Your task to perform on an android device: Find coffee shops on Maps Image 0: 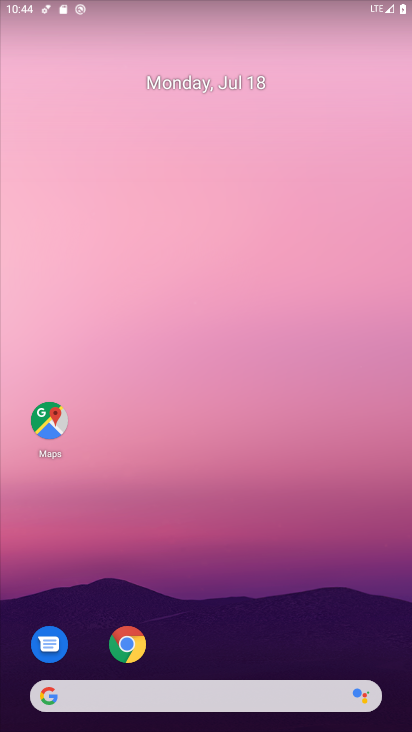
Step 0: drag from (359, 635) to (389, 131)
Your task to perform on an android device: Find coffee shops on Maps Image 1: 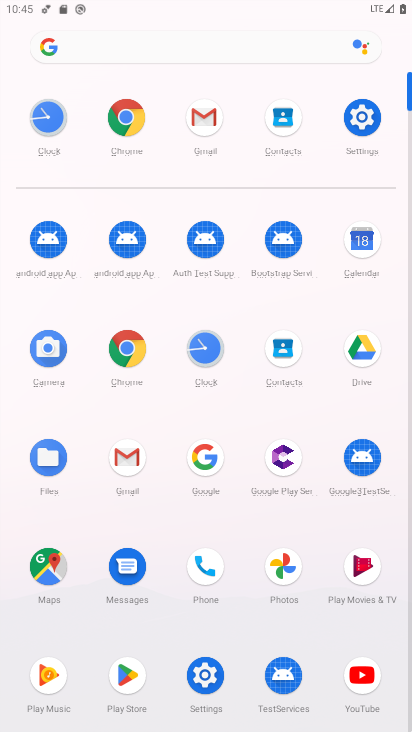
Step 1: click (53, 568)
Your task to perform on an android device: Find coffee shops on Maps Image 2: 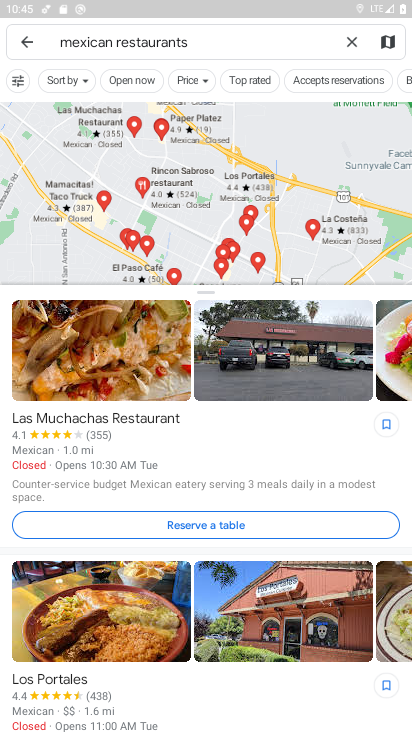
Step 2: press back button
Your task to perform on an android device: Find coffee shops on Maps Image 3: 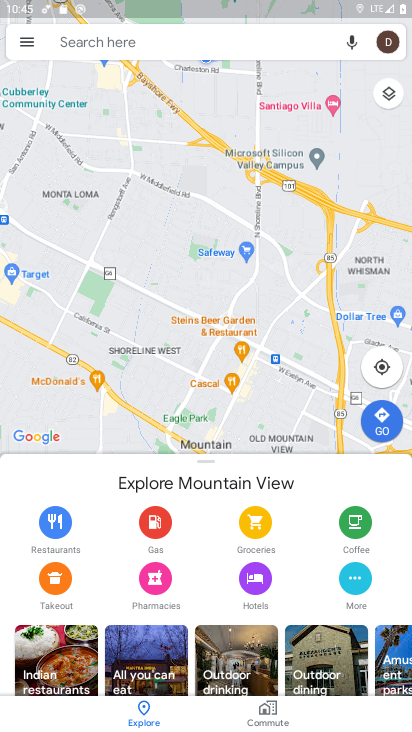
Step 3: click (243, 41)
Your task to perform on an android device: Find coffee shops on Maps Image 4: 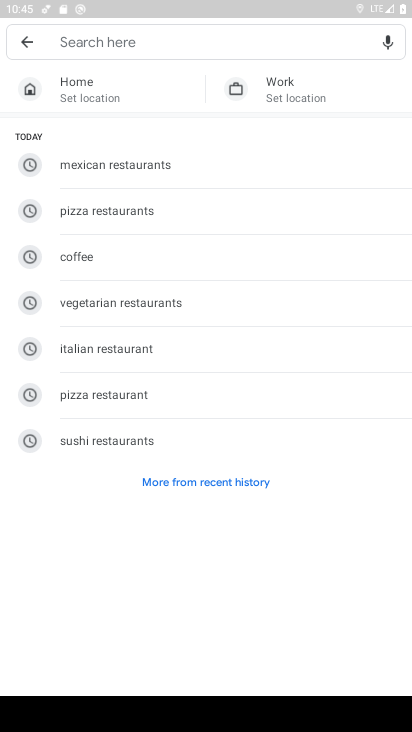
Step 4: type "coffee shops"
Your task to perform on an android device: Find coffee shops on Maps Image 5: 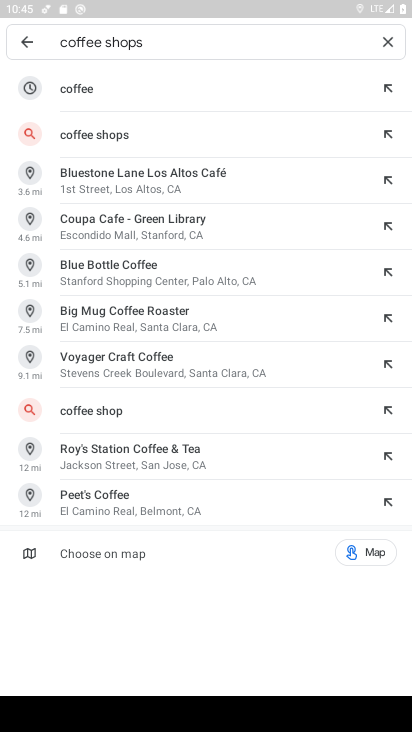
Step 5: click (157, 143)
Your task to perform on an android device: Find coffee shops on Maps Image 6: 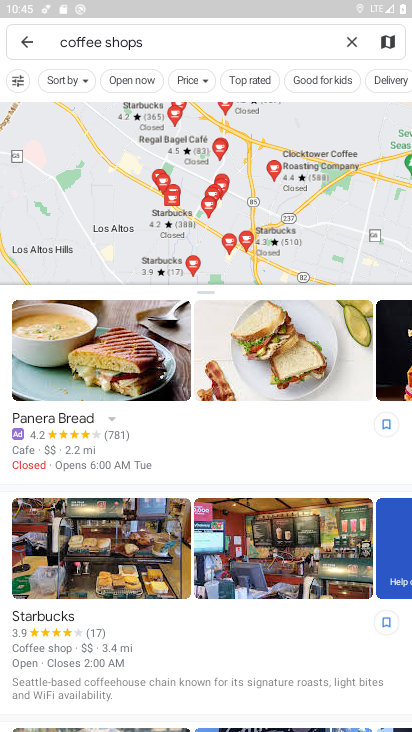
Step 6: task complete